Your task to perform on an android device: Open Reddit.com Image 0: 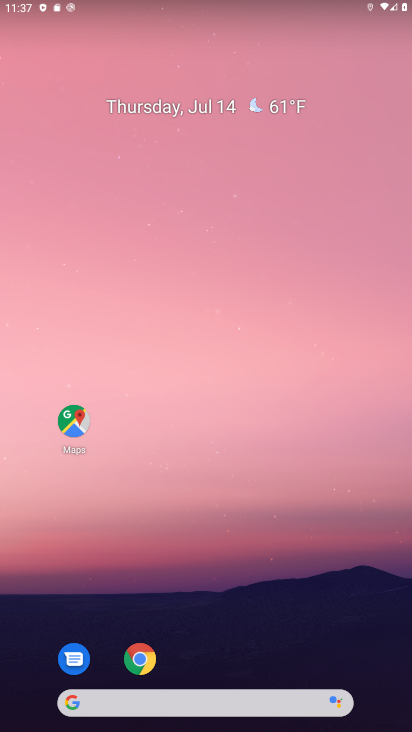
Step 0: click (271, 135)
Your task to perform on an android device: Open Reddit.com Image 1: 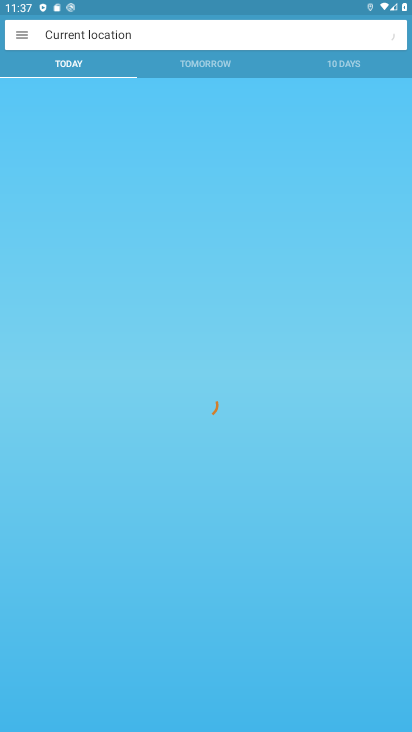
Step 1: click (209, 619)
Your task to perform on an android device: Open Reddit.com Image 2: 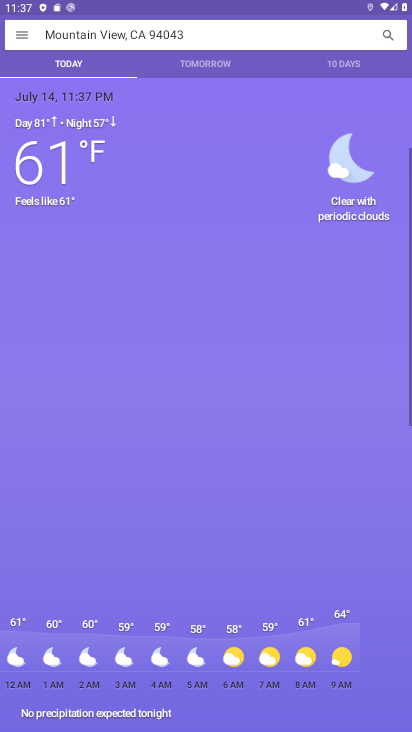
Step 2: press home button
Your task to perform on an android device: Open Reddit.com Image 3: 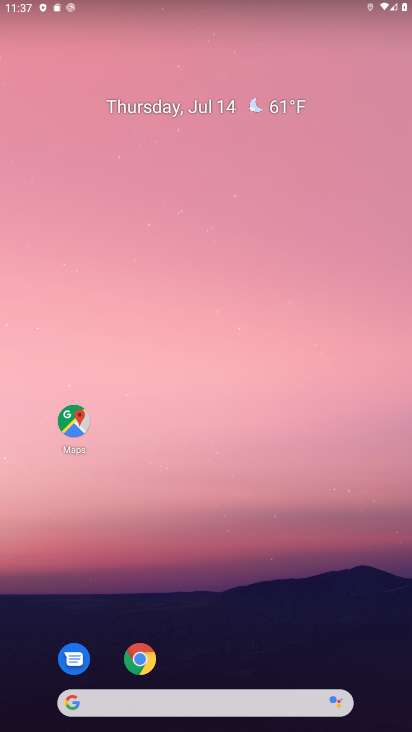
Step 3: drag from (174, 669) to (243, 133)
Your task to perform on an android device: Open Reddit.com Image 4: 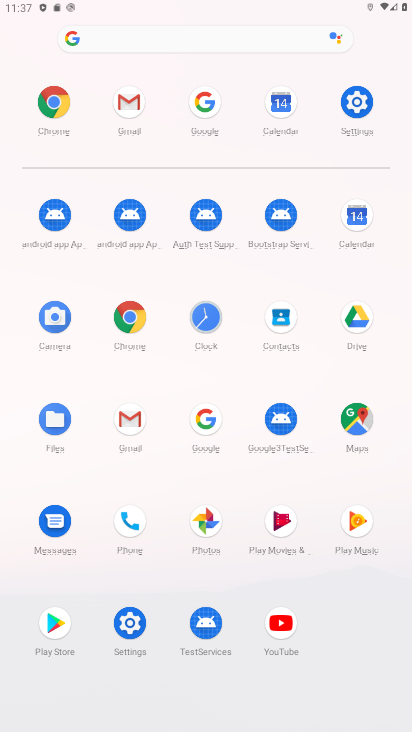
Step 4: click (58, 92)
Your task to perform on an android device: Open Reddit.com Image 5: 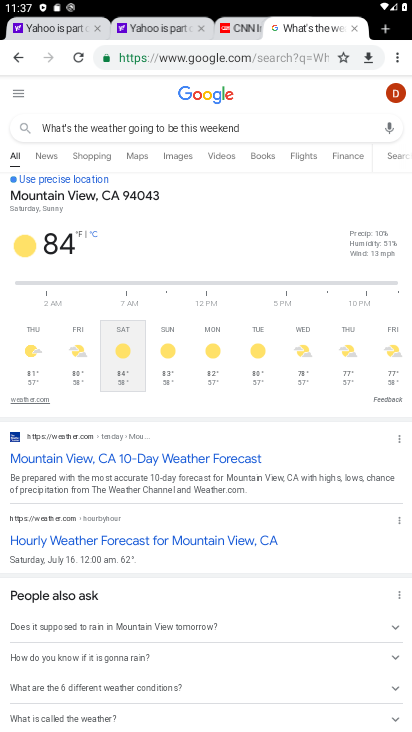
Step 5: click (391, 27)
Your task to perform on an android device: Open Reddit.com Image 6: 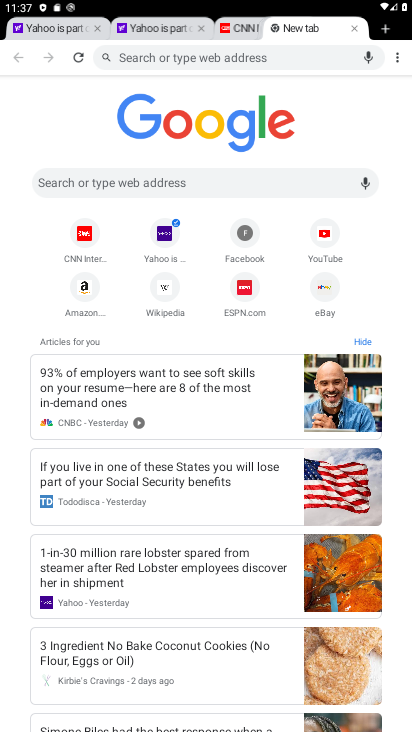
Step 6: click (144, 165)
Your task to perform on an android device: Open Reddit.com Image 7: 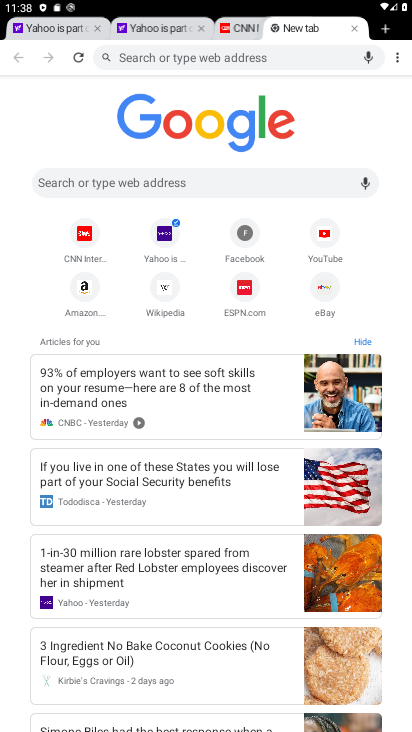
Step 7: type "Reddit.com "
Your task to perform on an android device: Open Reddit.com Image 8: 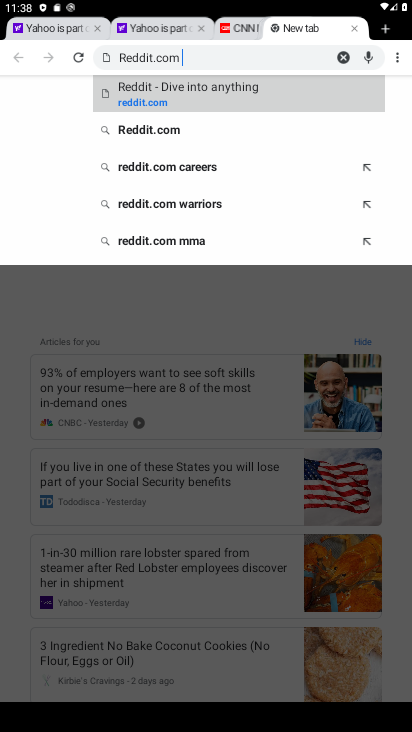
Step 8: click (165, 81)
Your task to perform on an android device: Open Reddit.com Image 9: 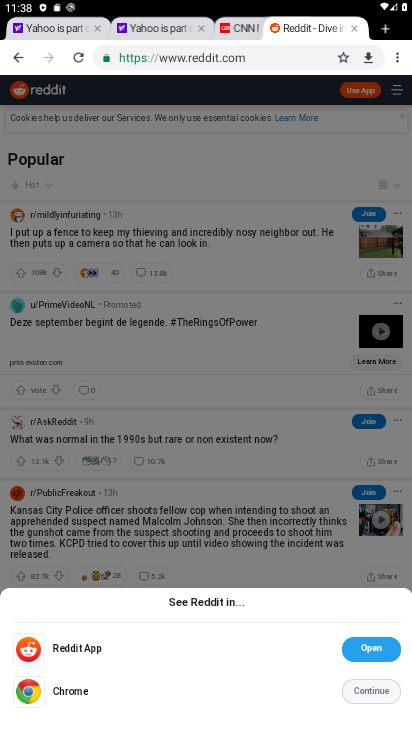
Step 9: task complete